Your task to perform on an android device: open a new tab in the chrome app Image 0: 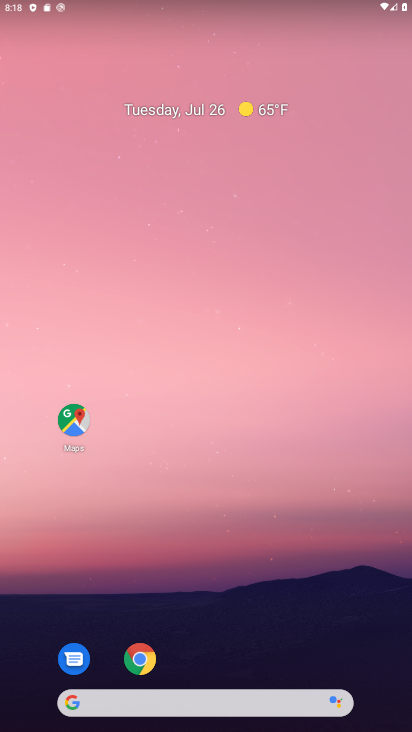
Step 0: click (136, 664)
Your task to perform on an android device: open a new tab in the chrome app Image 1: 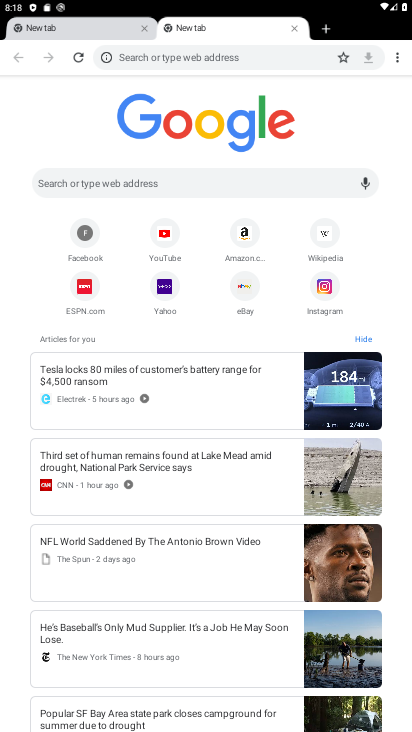
Step 1: click (395, 61)
Your task to perform on an android device: open a new tab in the chrome app Image 2: 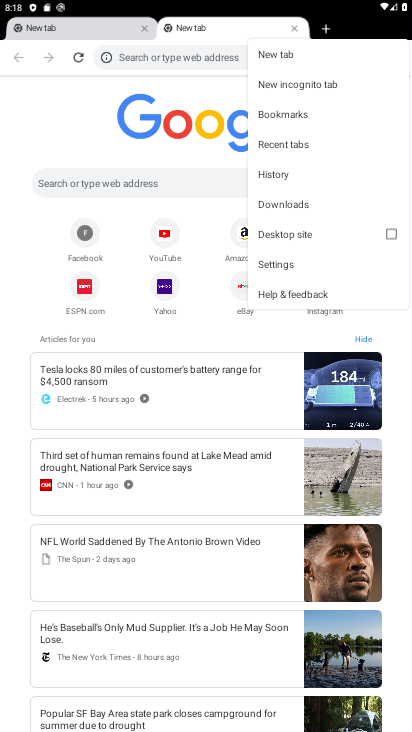
Step 2: click (301, 55)
Your task to perform on an android device: open a new tab in the chrome app Image 3: 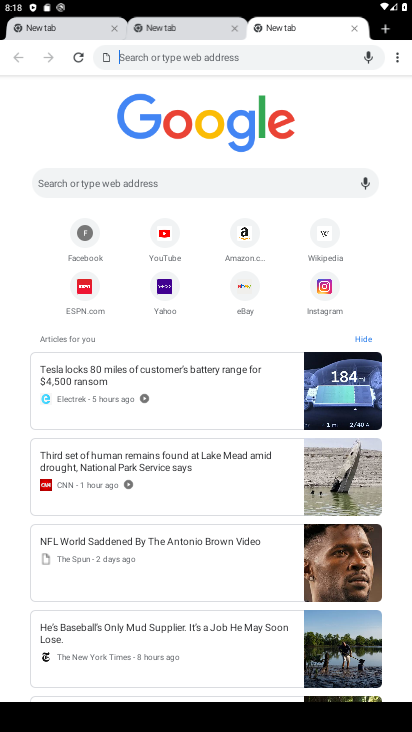
Step 3: task complete